Your task to perform on an android device: Go to Android settings Image 0: 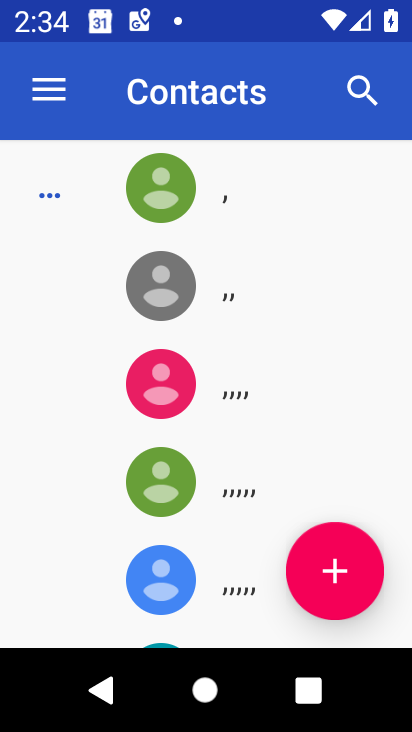
Step 0: press home button
Your task to perform on an android device: Go to Android settings Image 1: 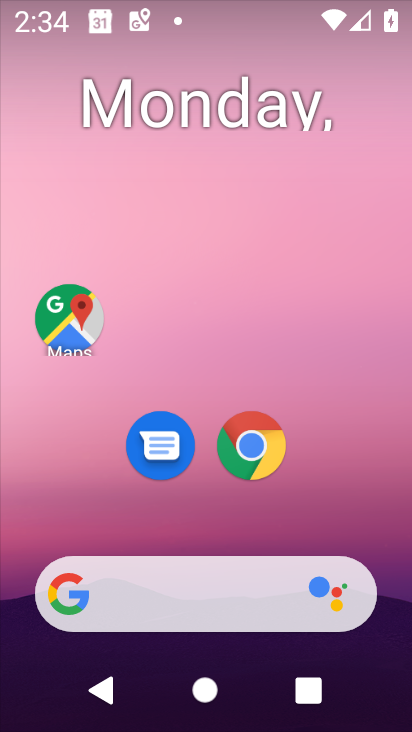
Step 1: drag from (350, 471) to (335, 85)
Your task to perform on an android device: Go to Android settings Image 2: 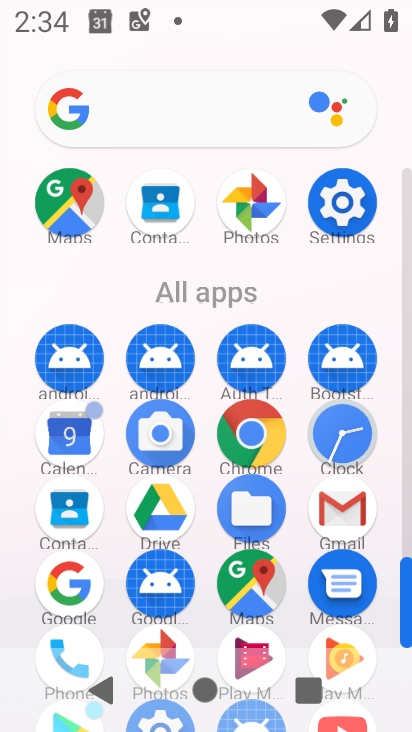
Step 2: click (346, 205)
Your task to perform on an android device: Go to Android settings Image 3: 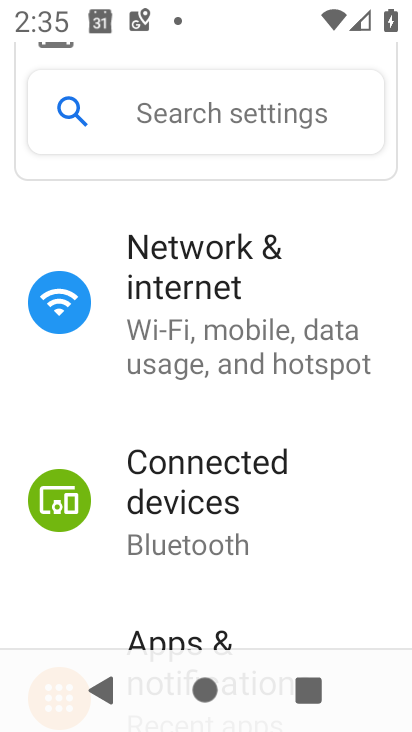
Step 3: drag from (295, 546) to (321, 150)
Your task to perform on an android device: Go to Android settings Image 4: 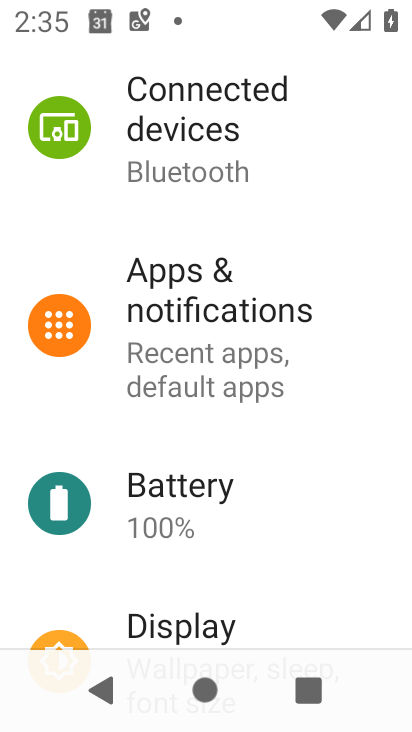
Step 4: drag from (256, 590) to (255, 256)
Your task to perform on an android device: Go to Android settings Image 5: 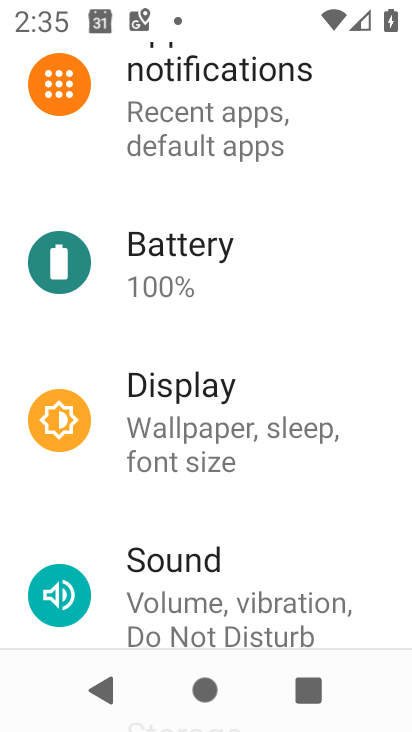
Step 5: drag from (239, 453) to (238, 351)
Your task to perform on an android device: Go to Android settings Image 6: 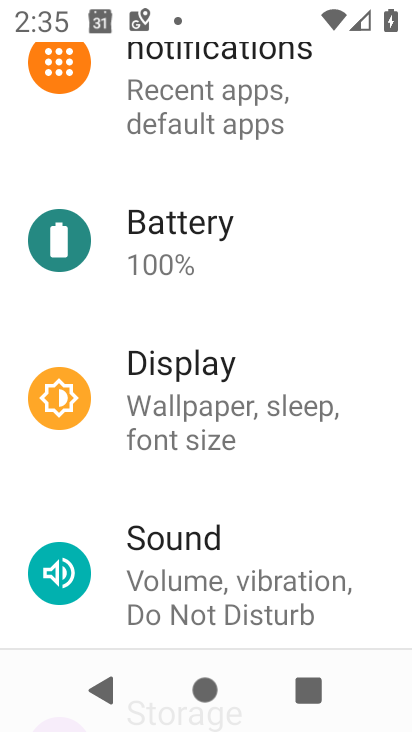
Step 6: drag from (235, 572) to (276, 267)
Your task to perform on an android device: Go to Android settings Image 7: 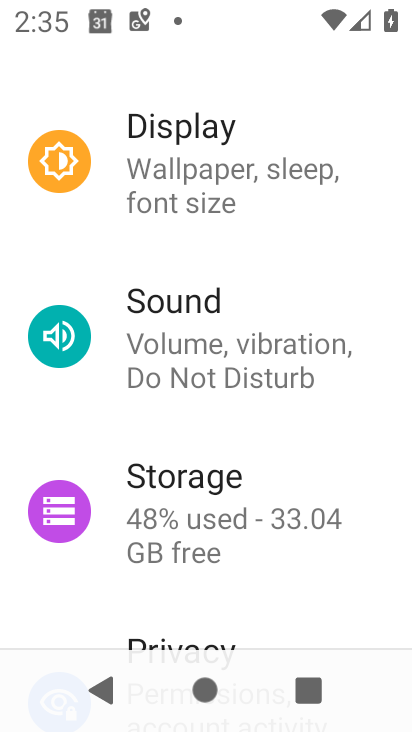
Step 7: drag from (210, 540) to (226, 180)
Your task to perform on an android device: Go to Android settings Image 8: 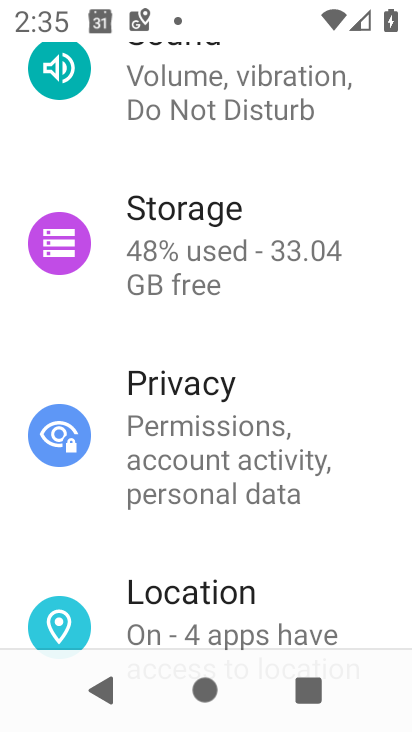
Step 8: drag from (213, 522) to (228, 151)
Your task to perform on an android device: Go to Android settings Image 9: 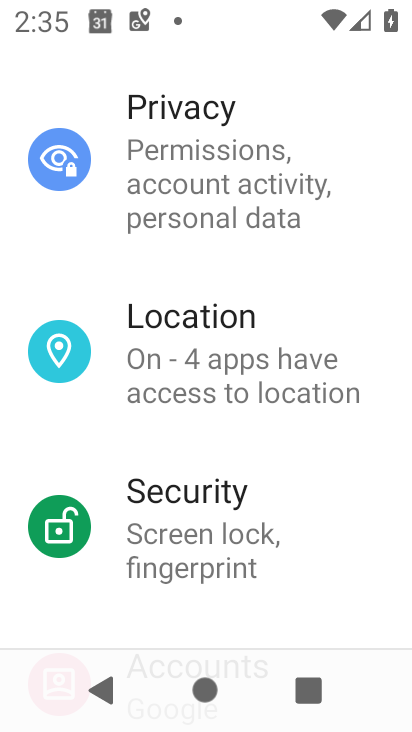
Step 9: drag from (193, 601) to (235, 122)
Your task to perform on an android device: Go to Android settings Image 10: 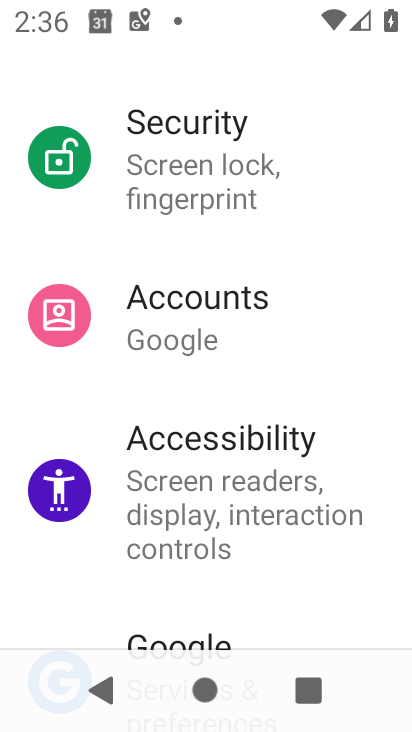
Step 10: drag from (241, 594) to (280, 81)
Your task to perform on an android device: Go to Android settings Image 11: 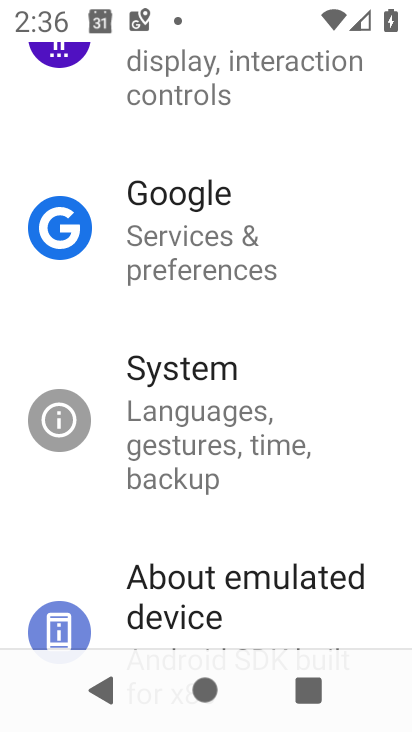
Step 11: click (230, 588)
Your task to perform on an android device: Go to Android settings Image 12: 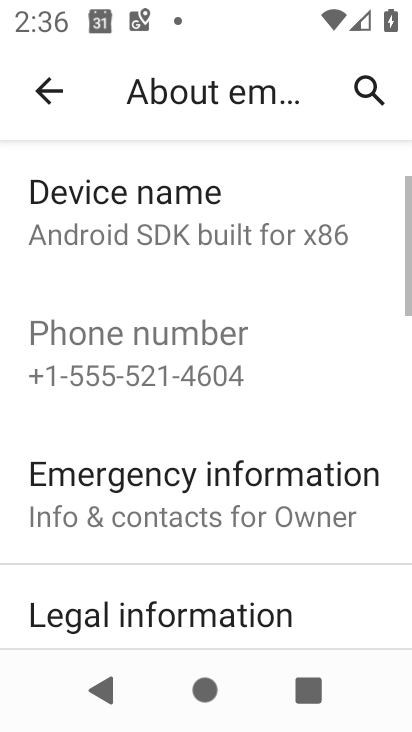
Step 12: drag from (225, 585) to (260, 150)
Your task to perform on an android device: Go to Android settings Image 13: 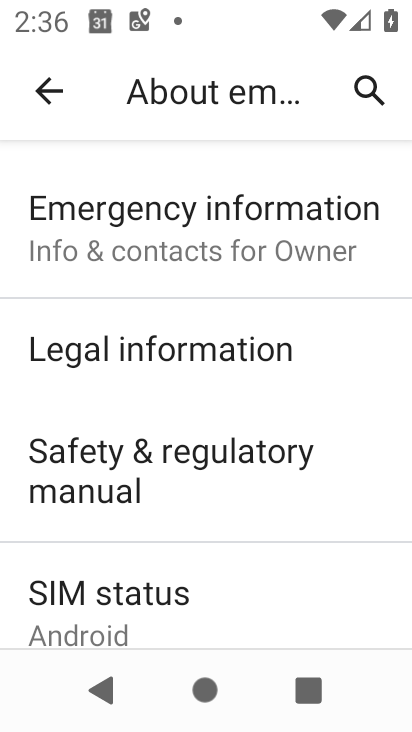
Step 13: drag from (193, 607) to (231, 249)
Your task to perform on an android device: Go to Android settings Image 14: 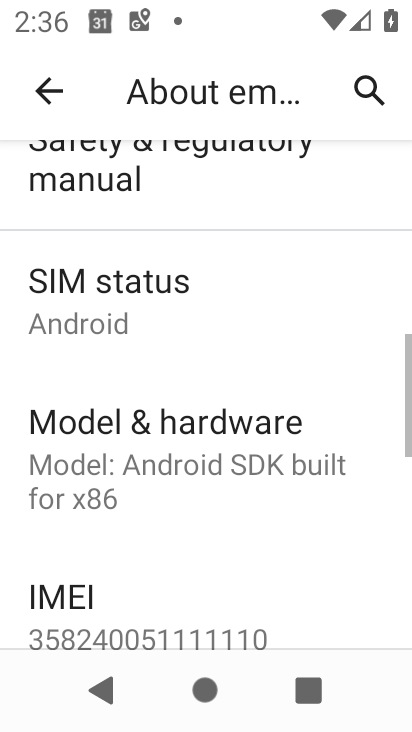
Step 14: drag from (177, 640) to (223, 202)
Your task to perform on an android device: Go to Android settings Image 15: 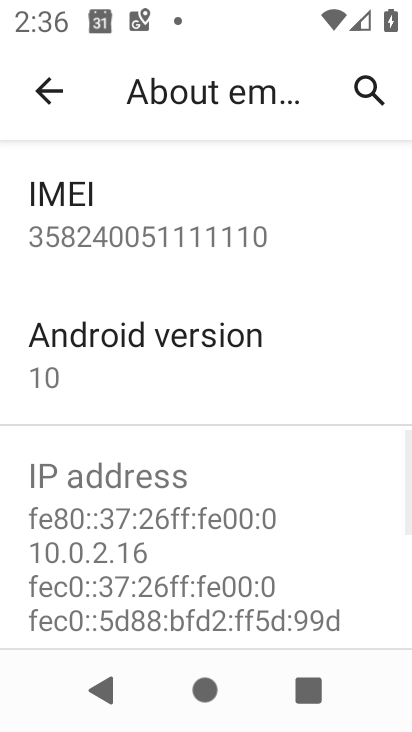
Step 15: click (198, 426)
Your task to perform on an android device: Go to Android settings Image 16: 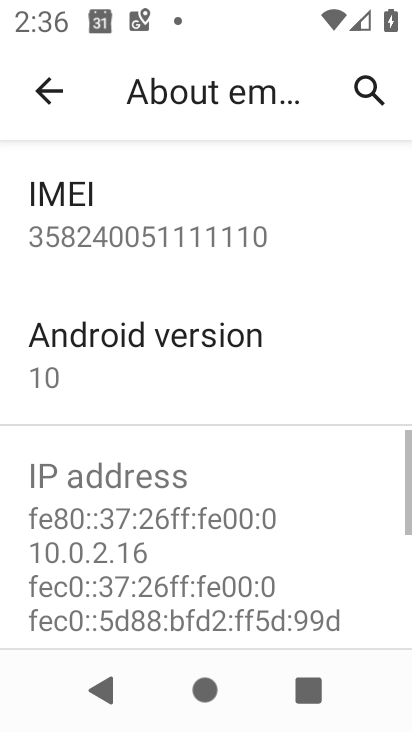
Step 16: click (191, 405)
Your task to perform on an android device: Go to Android settings Image 17: 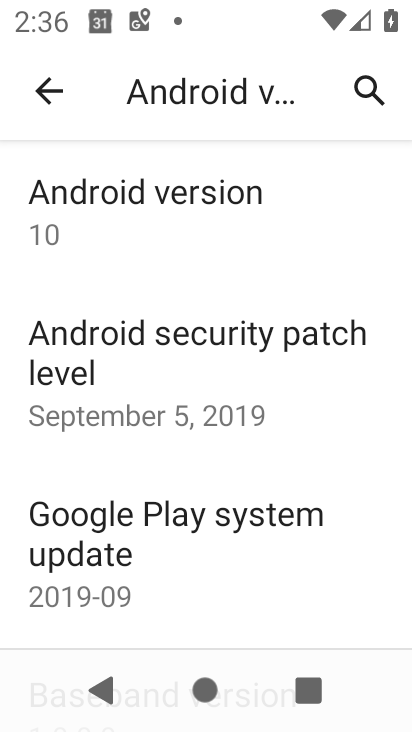
Step 17: task complete